Your task to perform on an android device: Show the shopping cart on walmart. Add "bose soundsport free" to the cart on walmart Image 0: 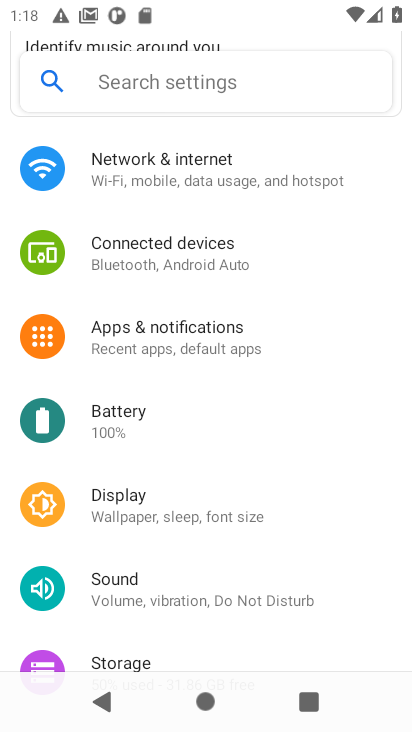
Step 0: press home button
Your task to perform on an android device: Show the shopping cart on walmart. Add "bose soundsport free" to the cart on walmart Image 1: 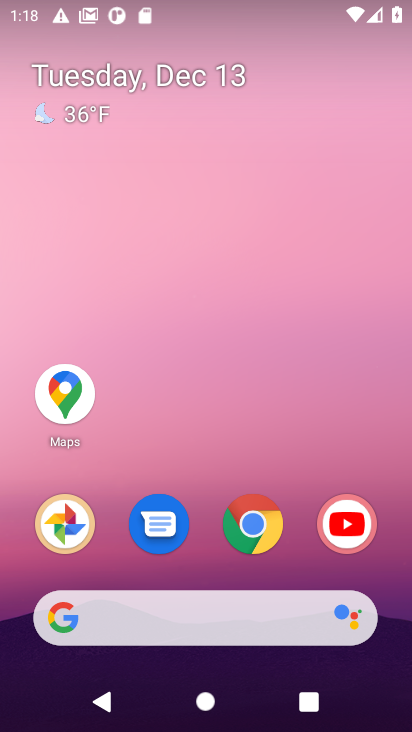
Step 1: click (257, 528)
Your task to perform on an android device: Show the shopping cart on walmart. Add "bose soundsport free" to the cart on walmart Image 2: 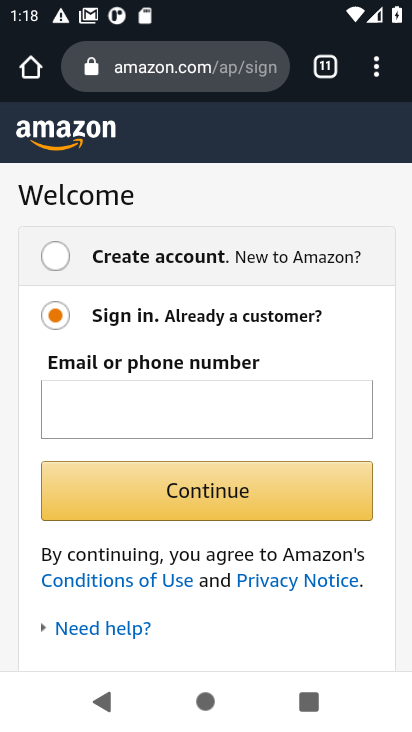
Step 2: click (156, 67)
Your task to perform on an android device: Show the shopping cart on walmart. Add "bose soundsport free" to the cart on walmart Image 3: 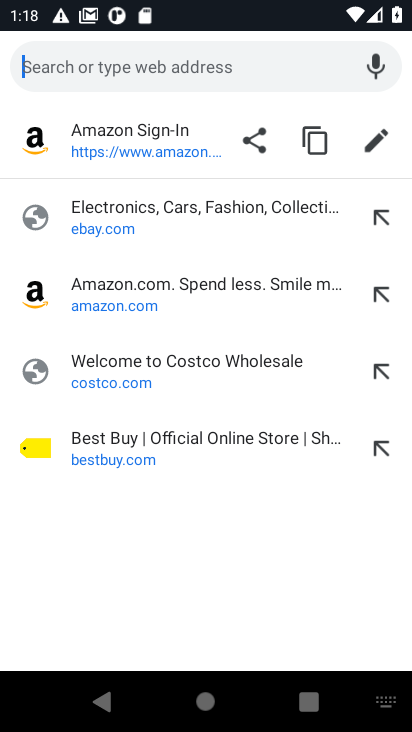
Step 3: type "walmart.com"
Your task to perform on an android device: Show the shopping cart on walmart. Add "bose soundsport free" to the cart on walmart Image 4: 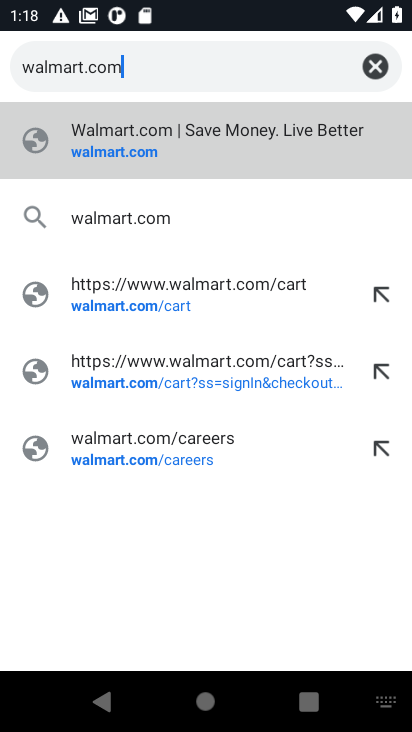
Step 4: click (130, 153)
Your task to perform on an android device: Show the shopping cart on walmart. Add "bose soundsport free" to the cart on walmart Image 5: 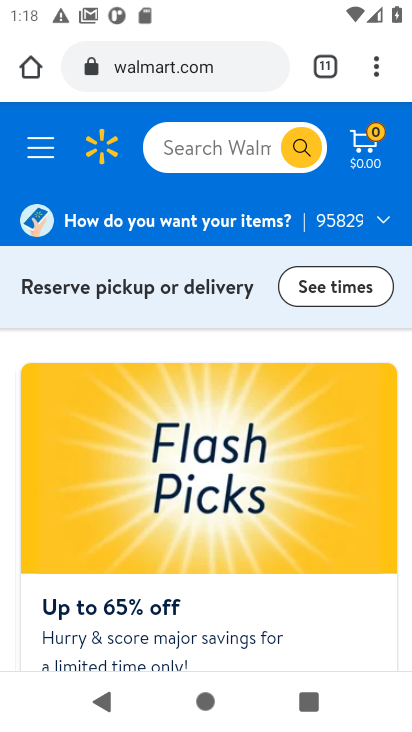
Step 5: click (363, 143)
Your task to perform on an android device: Show the shopping cart on walmart. Add "bose soundsport free" to the cart on walmart Image 6: 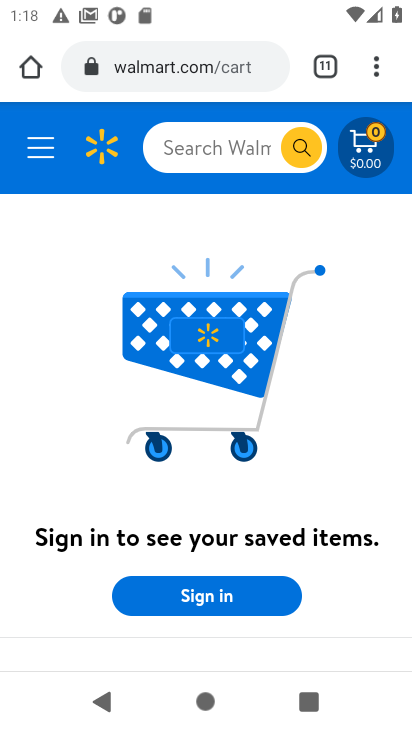
Step 6: click (202, 167)
Your task to perform on an android device: Show the shopping cart on walmart. Add "bose soundsport free" to the cart on walmart Image 7: 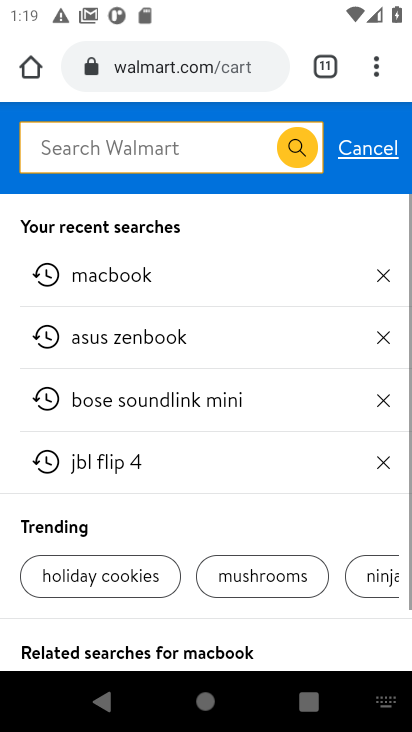
Step 7: type "bose soundsport free"
Your task to perform on an android device: Show the shopping cart on walmart. Add "bose soundsport free" to the cart on walmart Image 8: 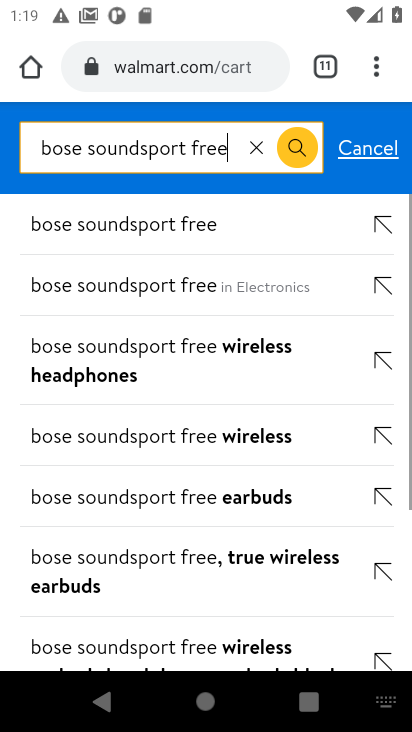
Step 8: click (173, 228)
Your task to perform on an android device: Show the shopping cart on walmart. Add "bose soundsport free" to the cart on walmart Image 9: 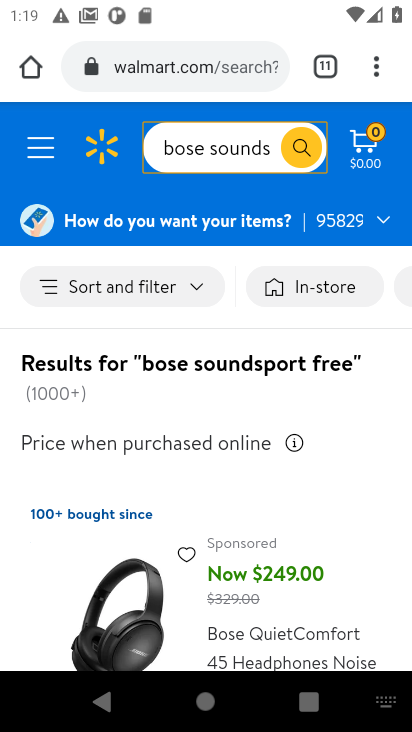
Step 9: task complete